Your task to perform on an android device: Open Maps and search for coffee Image 0: 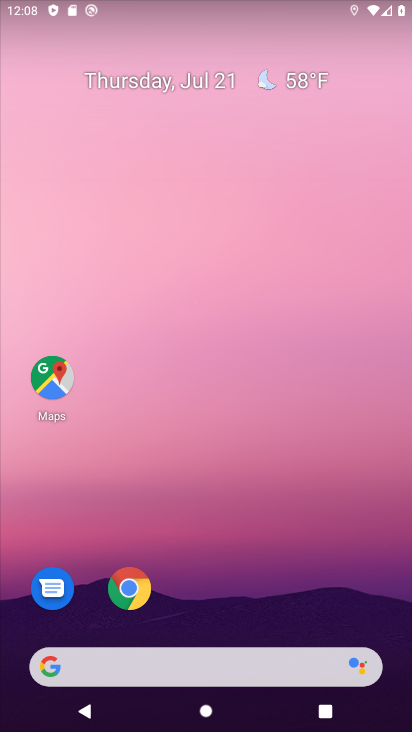
Step 0: click (56, 377)
Your task to perform on an android device: Open Maps and search for coffee Image 1: 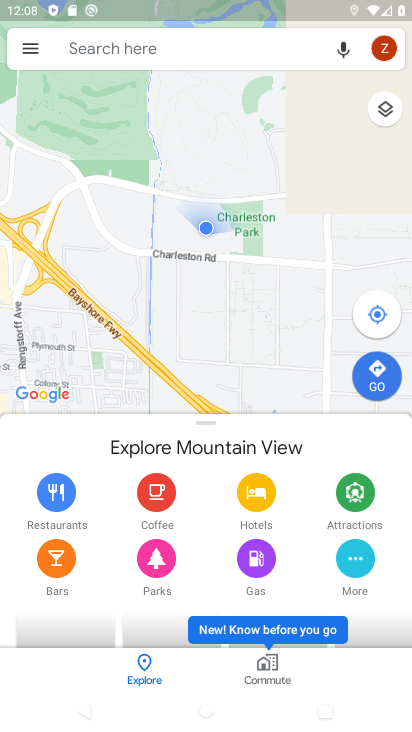
Step 1: click (212, 54)
Your task to perform on an android device: Open Maps and search for coffee Image 2: 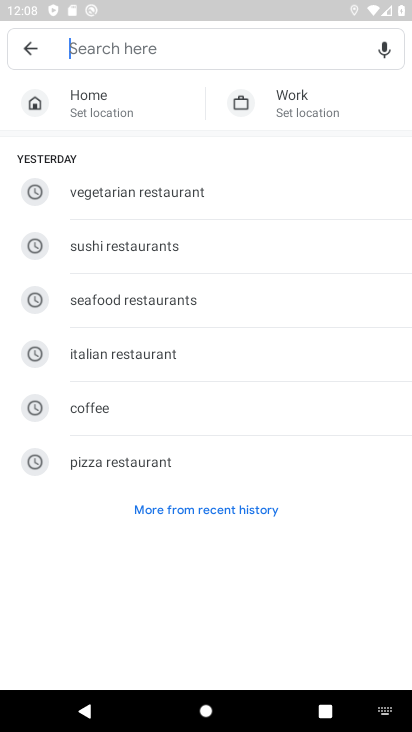
Step 2: type "coffee"
Your task to perform on an android device: Open Maps and search for coffee Image 3: 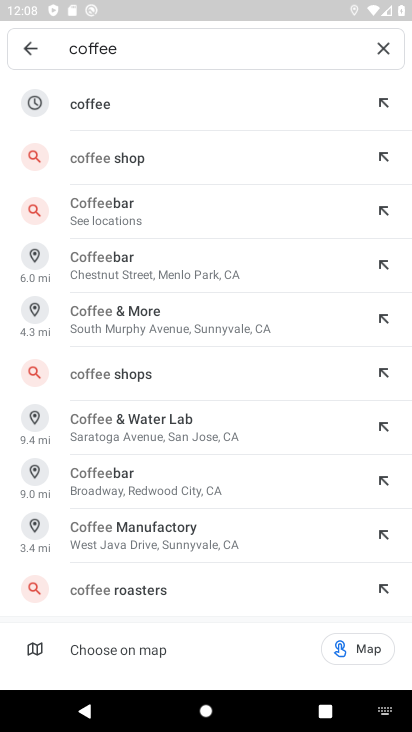
Step 3: click (200, 90)
Your task to perform on an android device: Open Maps and search for coffee Image 4: 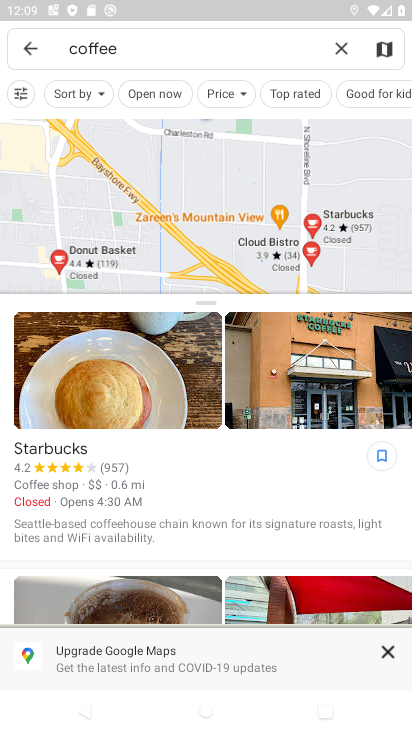
Step 4: task complete